Your task to perform on an android device: change your default location settings in chrome Image 0: 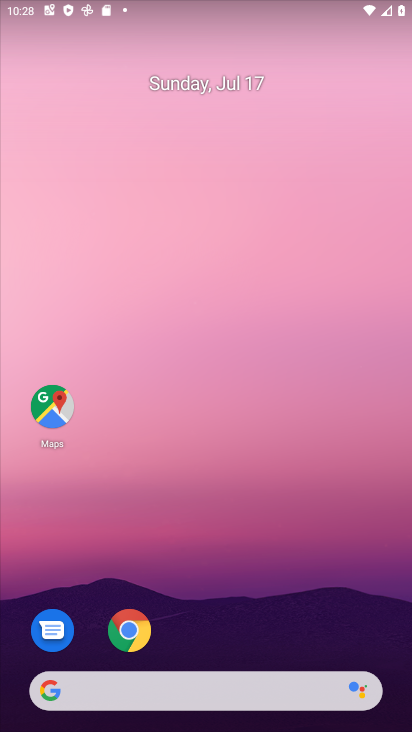
Step 0: click (120, 636)
Your task to perform on an android device: change your default location settings in chrome Image 1: 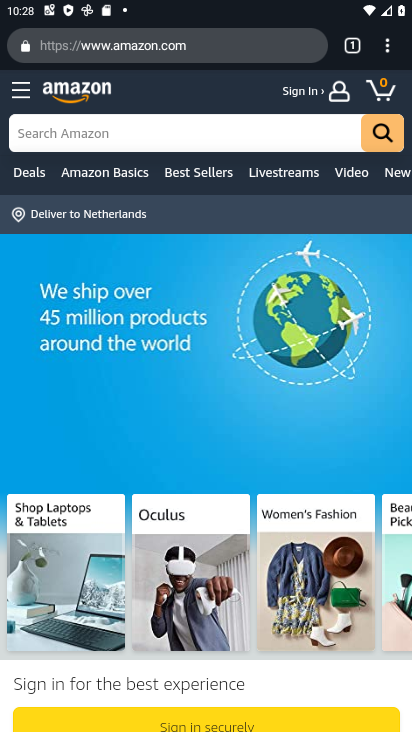
Step 1: click (380, 61)
Your task to perform on an android device: change your default location settings in chrome Image 2: 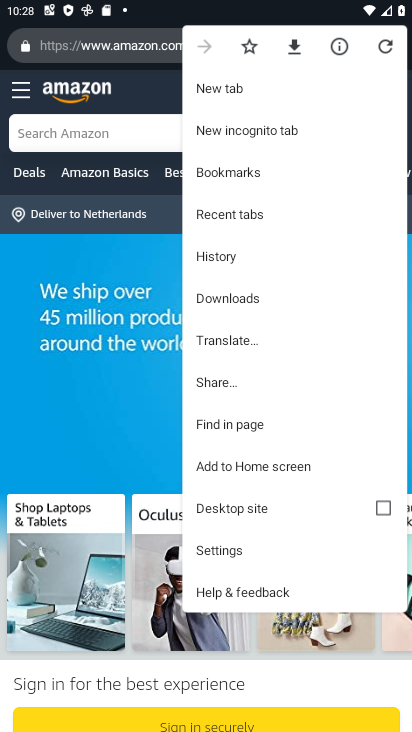
Step 2: click (237, 556)
Your task to perform on an android device: change your default location settings in chrome Image 3: 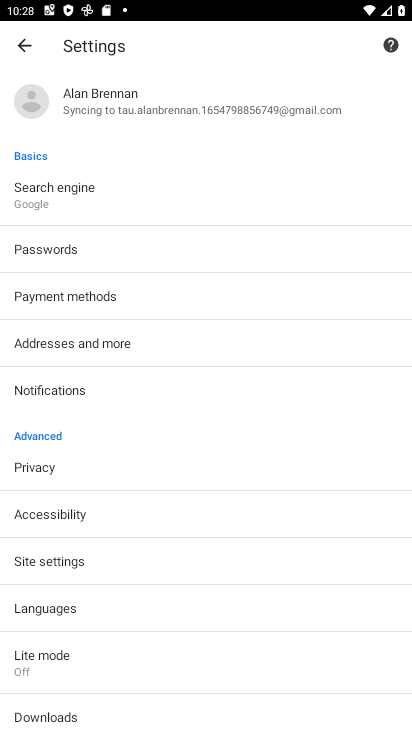
Step 3: click (117, 332)
Your task to perform on an android device: change your default location settings in chrome Image 4: 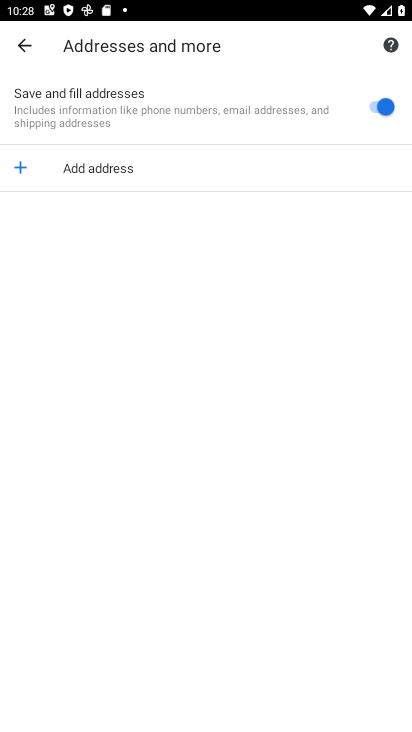
Step 4: task complete